Your task to perform on an android device: turn on airplane mode Image 0: 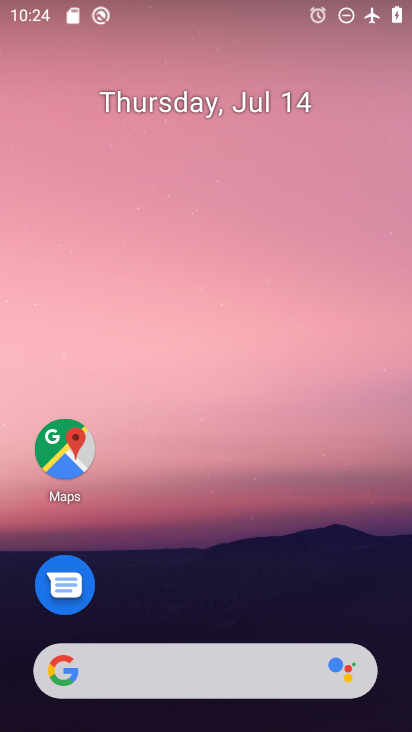
Step 0: drag from (246, 618) to (219, 52)
Your task to perform on an android device: turn on airplane mode Image 1: 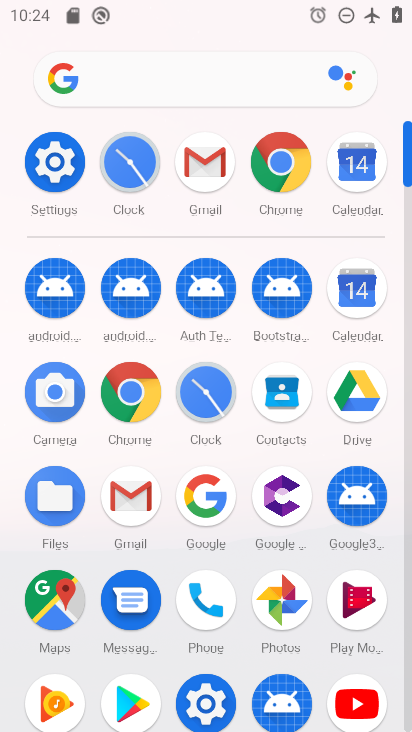
Step 1: click (45, 152)
Your task to perform on an android device: turn on airplane mode Image 2: 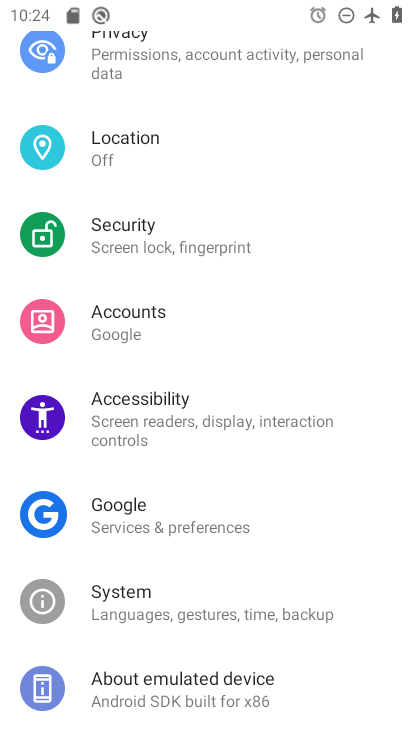
Step 2: drag from (159, 257) to (183, 619)
Your task to perform on an android device: turn on airplane mode Image 3: 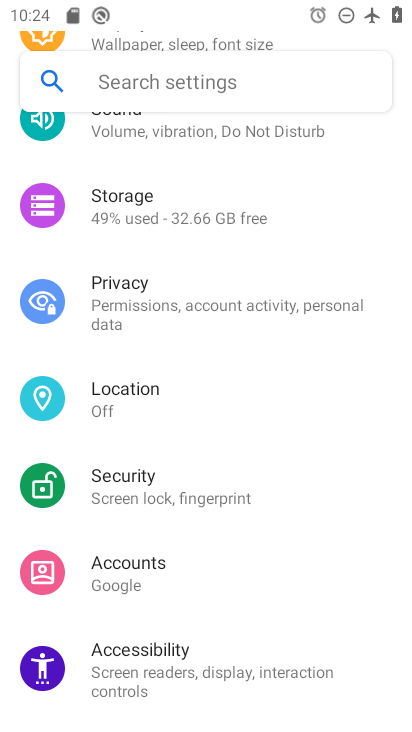
Step 3: drag from (185, 285) to (132, 578)
Your task to perform on an android device: turn on airplane mode Image 4: 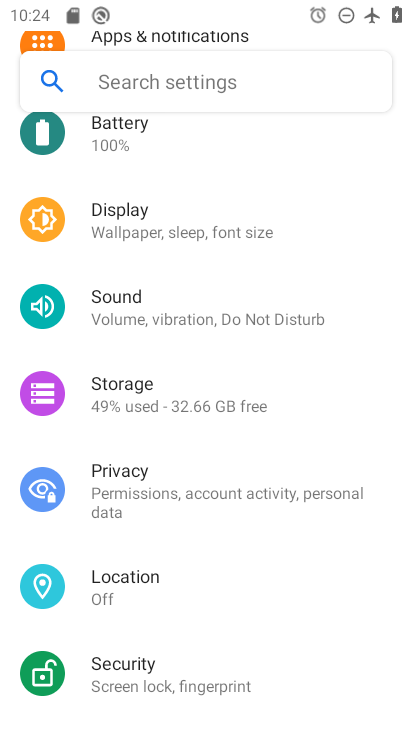
Step 4: drag from (234, 252) to (185, 681)
Your task to perform on an android device: turn on airplane mode Image 5: 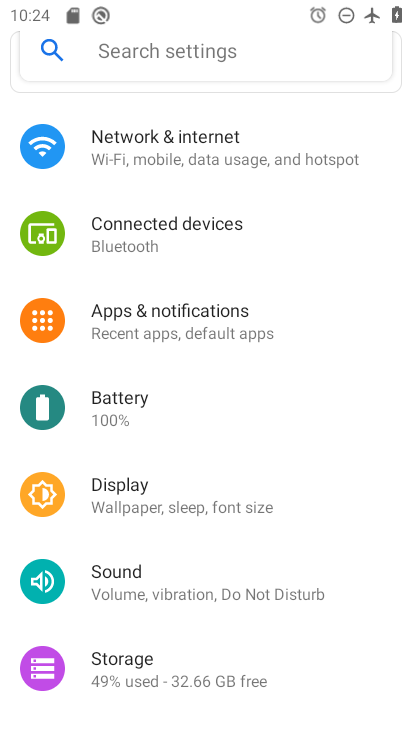
Step 5: click (128, 166)
Your task to perform on an android device: turn on airplane mode Image 6: 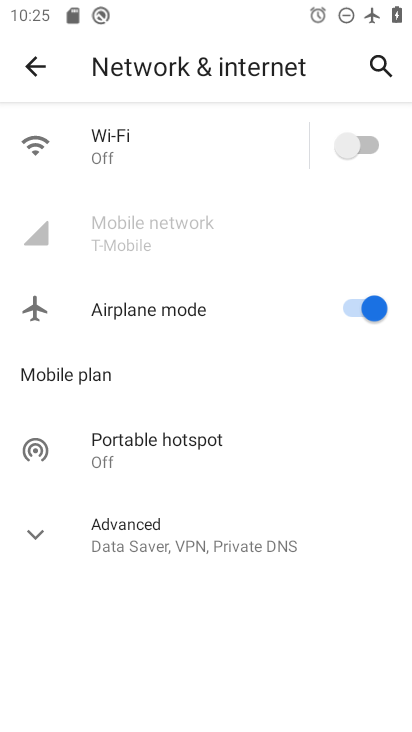
Step 6: task complete